Your task to perform on an android device: turn on javascript in the chrome app Image 0: 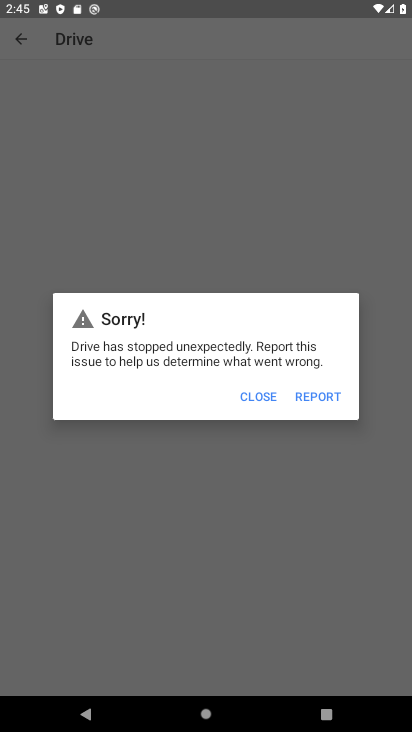
Step 0: press home button
Your task to perform on an android device: turn on javascript in the chrome app Image 1: 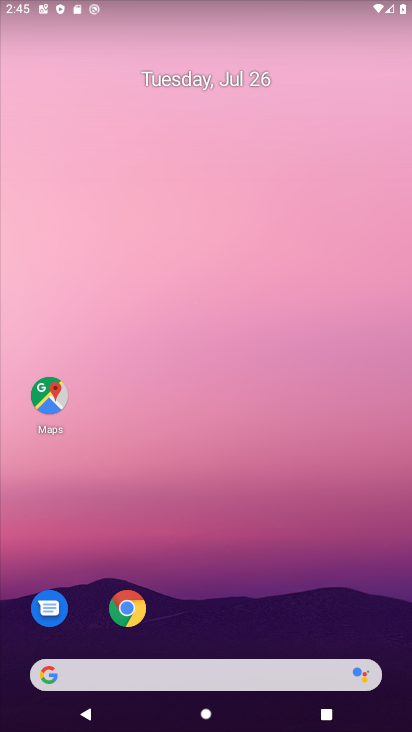
Step 1: drag from (257, 602) to (263, 91)
Your task to perform on an android device: turn on javascript in the chrome app Image 2: 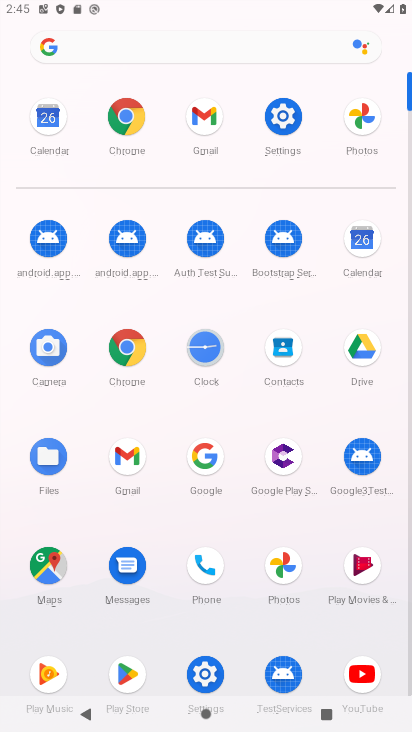
Step 2: click (279, 113)
Your task to perform on an android device: turn on javascript in the chrome app Image 3: 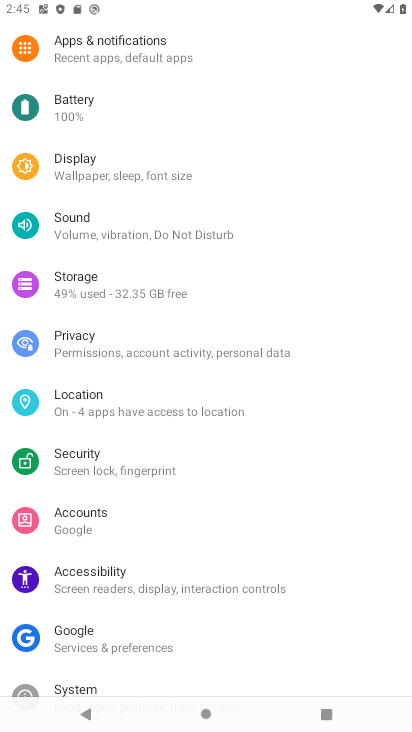
Step 3: task complete